Your task to perform on an android device: turn off priority inbox in the gmail app Image 0: 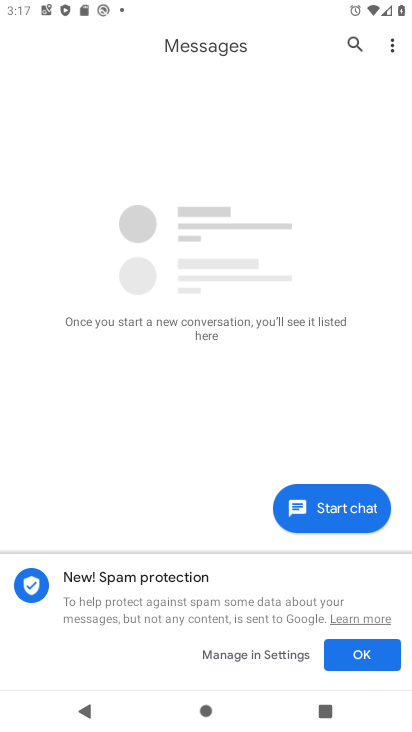
Step 0: press home button
Your task to perform on an android device: turn off priority inbox in the gmail app Image 1: 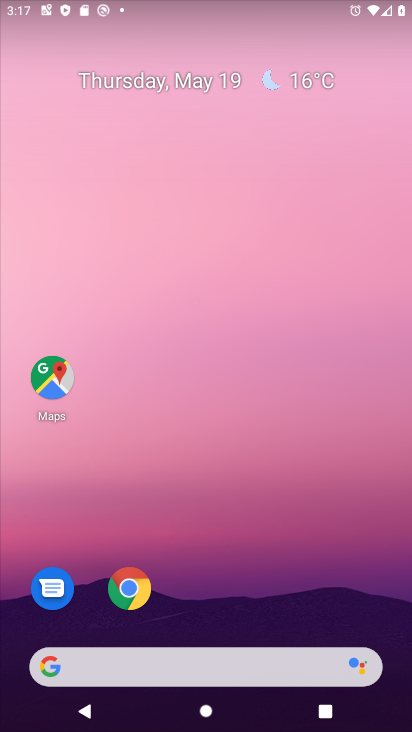
Step 1: drag from (193, 561) to (243, 146)
Your task to perform on an android device: turn off priority inbox in the gmail app Image 2: 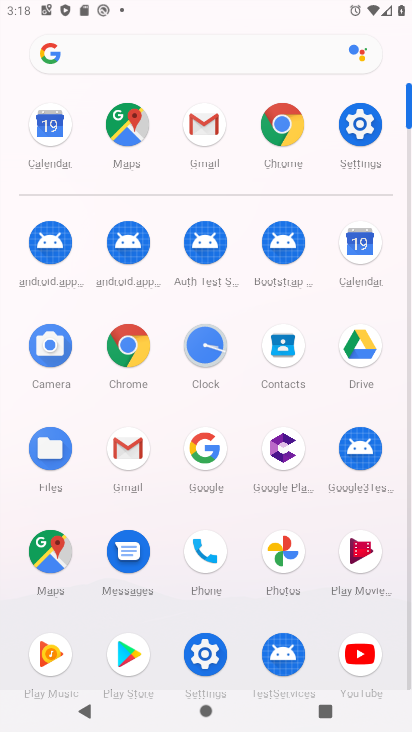
Step 2: click (203, 126)
Your task to perform on an android device: turn off priority inbox in the gmail app Image 3: 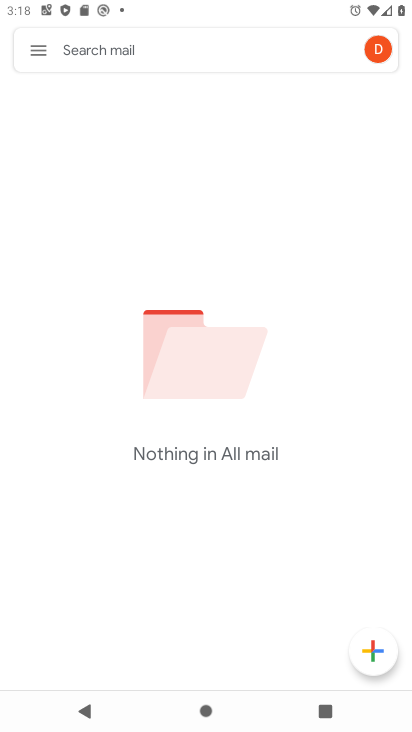
Step 3: click (35, 44)
Your task to perform on an android device: turn off priority inbox in the gmail app Image 4: 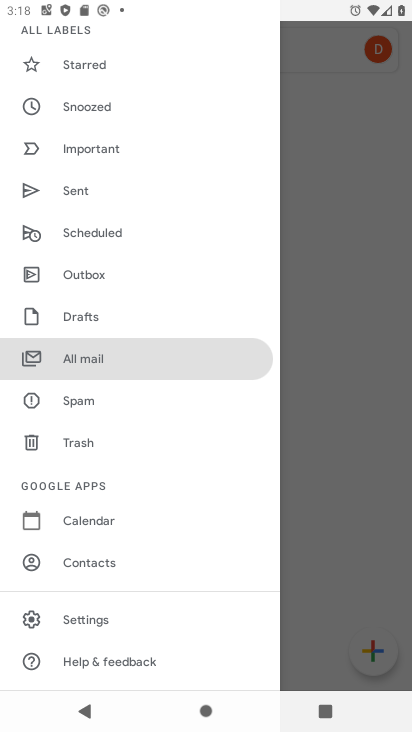
Step 4: click (114, 618)
Your task to perform on an android device: turn off priority inbox in the gmail app Image 5: 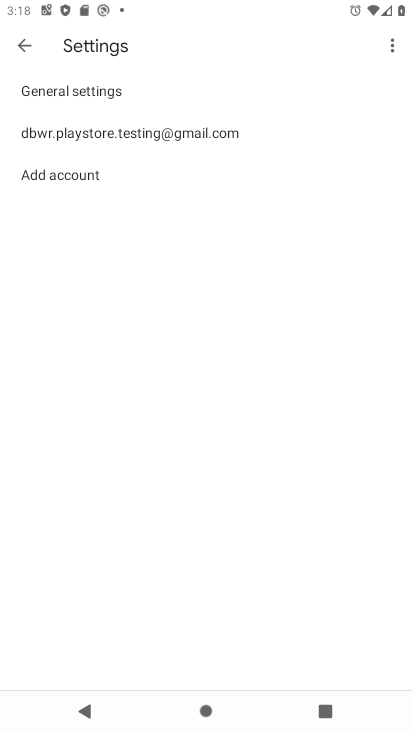
Step 5: click (176, 135)
Your task to perform on an android device: turn off priority inbox in the gmail app Image 6: 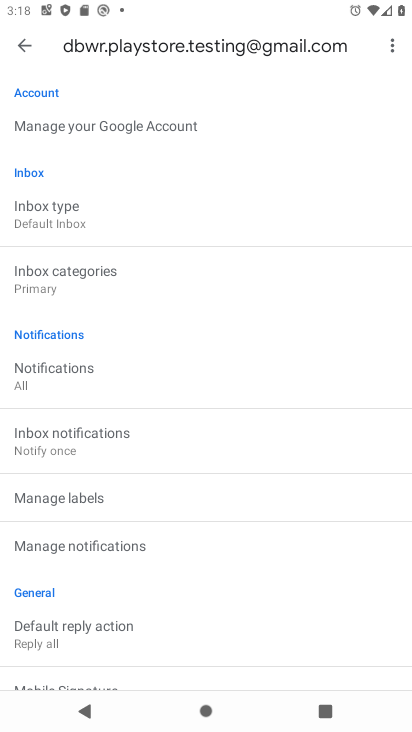
Step 6: click (68, 231)
Your task to perform on an android device: turn off priority inbox in the gmail app Image 7: 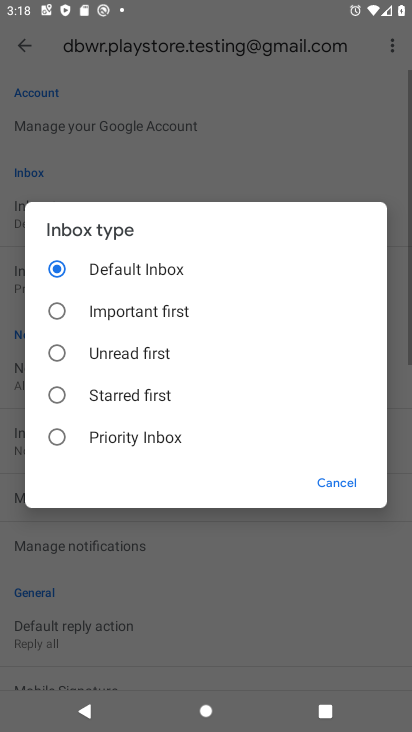
Step 7: task complete